Your task to perform on an android device: Go to privacy settings Image 0: 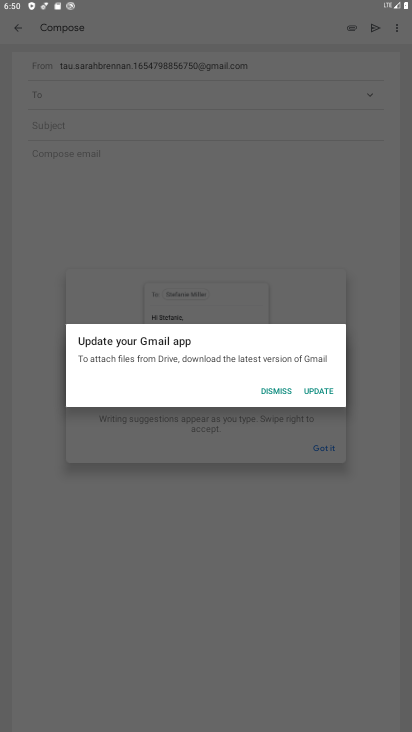
Step 0: press home button
Your task to perform on an android device: Go to privacy settings Image 1: 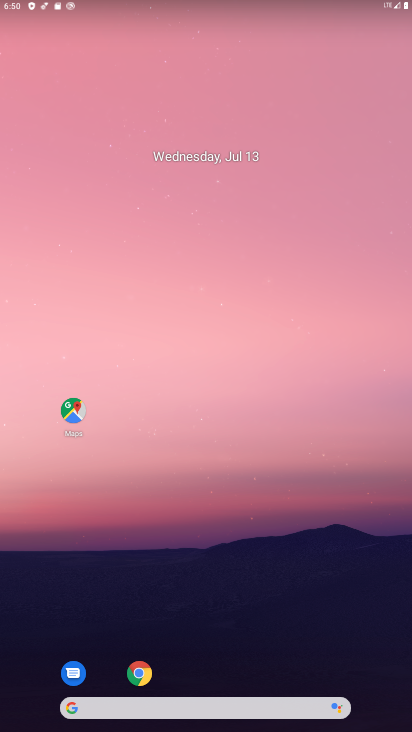
Step 1: drag from (287, 645) to (366, 78)
Your task to perform on an android device: Go to privacy settings Image 2: 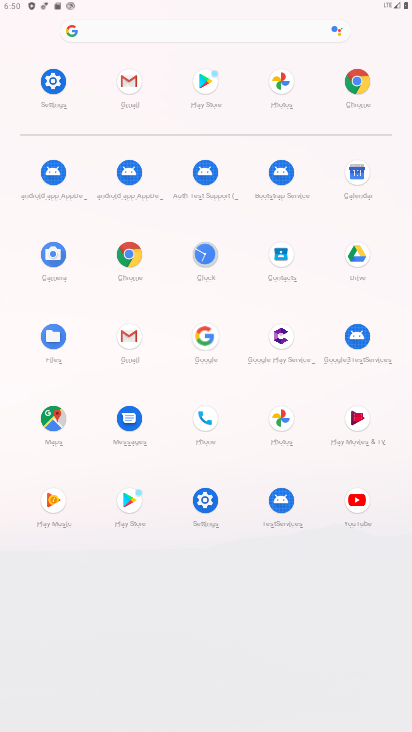
Step 2: click (57, 72)
Your task to perform on an android device: Go to privacy settings Image 3: 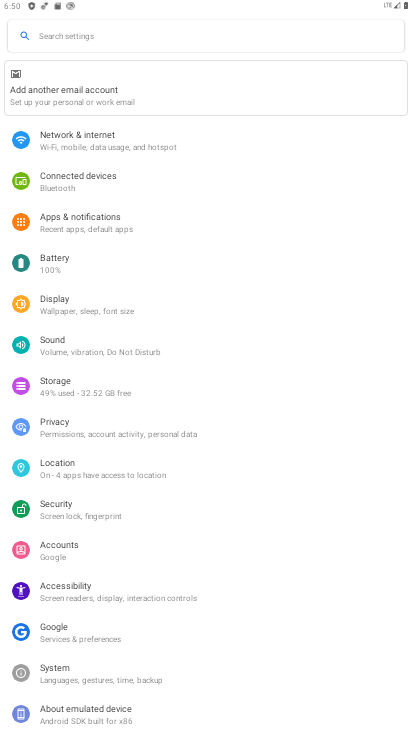
Step 3: click (58, 418)
Your task to perform on an android device: Go to privacy settings Image 4: 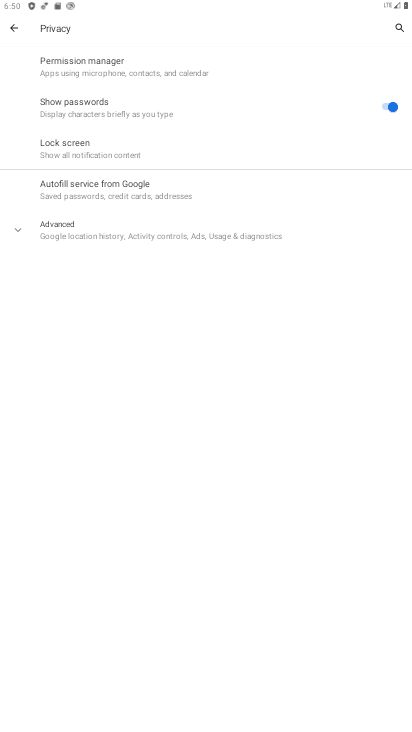
Step 4: task complete